Your task to perform on an android device: allow notifications from all sites in the chrome app Image 0: 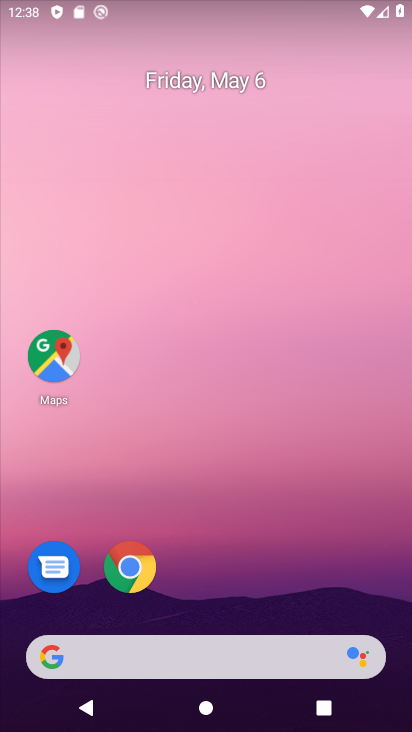
Step 0: drag from (216, 680) to (206, 199)
Your task to perform on an android device: allow notifications from all sites in the chrome app Image 1: 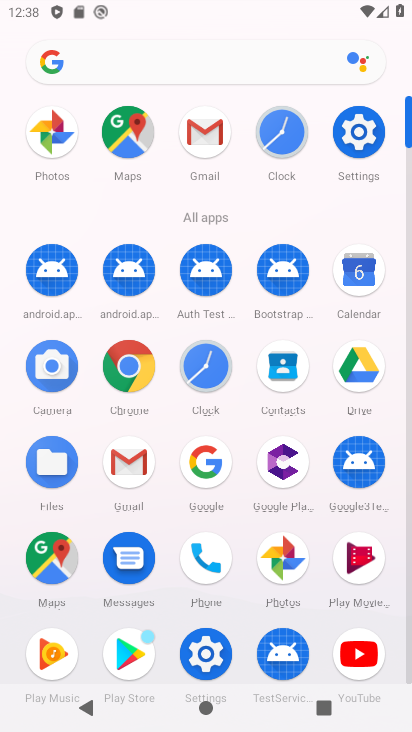
Step 1: click (136, 383)
Your task to perform on an android device: allow notifications from all sites in the chrome app Image 2: 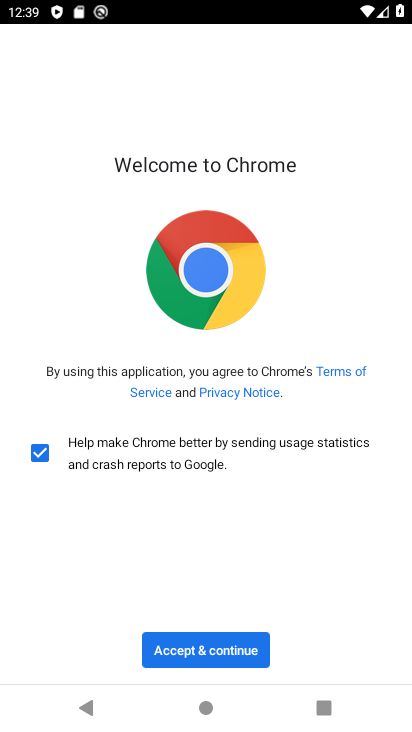
Step 2: click (223, 658)
Your task to perform on an android device: allow notifications from all sites in the chrome app Image 3: 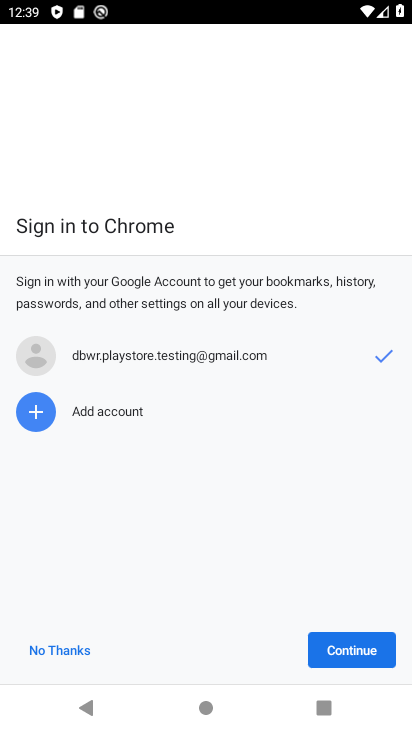
Step 3: click (345, 640)
Your task to perform on an android device: allow notifications from all sites in the chrome app Image 4: 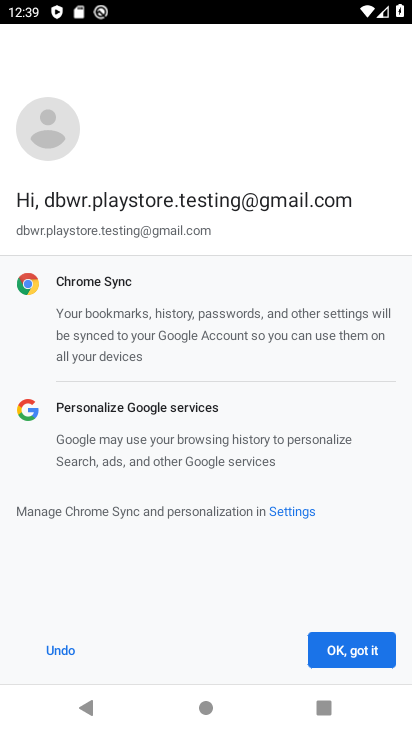
Step 4: click (347, 647)
Your task to perform on an android device: allow notifications from all sites in the chrome app Image 5: 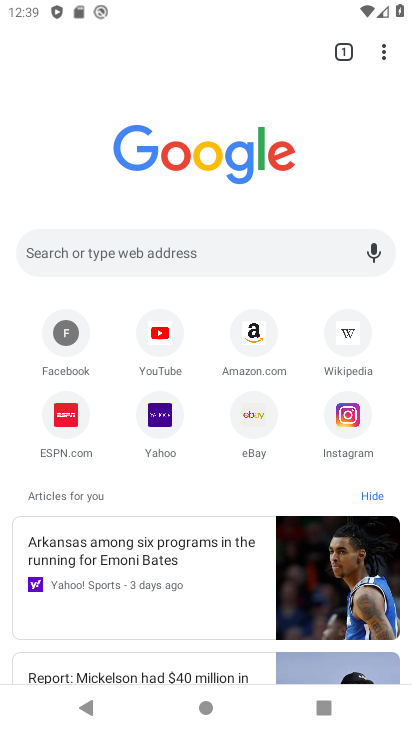
Step 5: click (371, 69)
Your task to perform on an android device: allow notifications from all sites in the chrome app Image 6: 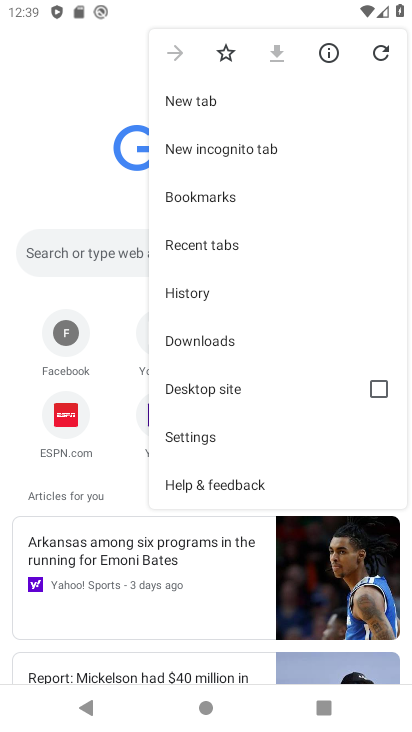
Step 6: click (203, 429)
Your task to perform on an android device: allow notifications from all sites in the chrome app Image 7: 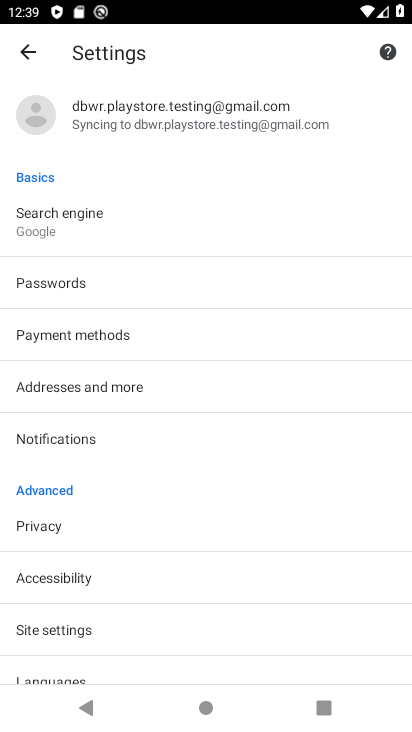
Step 7: click (97, 621)
Your task to perform on an android device: allow notifications from all sites in the chrome app Image 8: 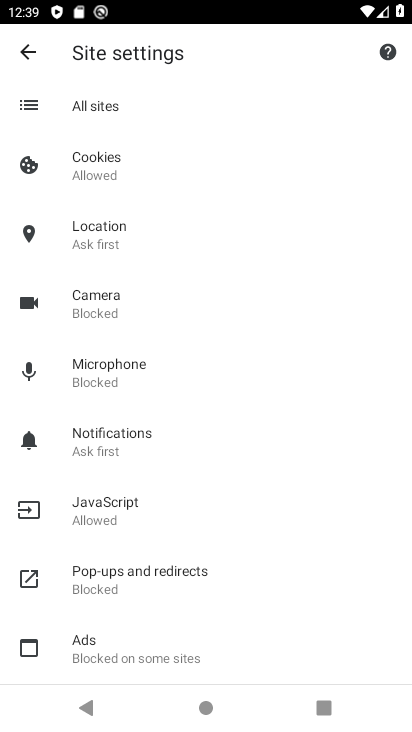
Step 8: click (165, 101)
Your task to perform on an android device: allow notifications from all sites in the chrome app Image 9: 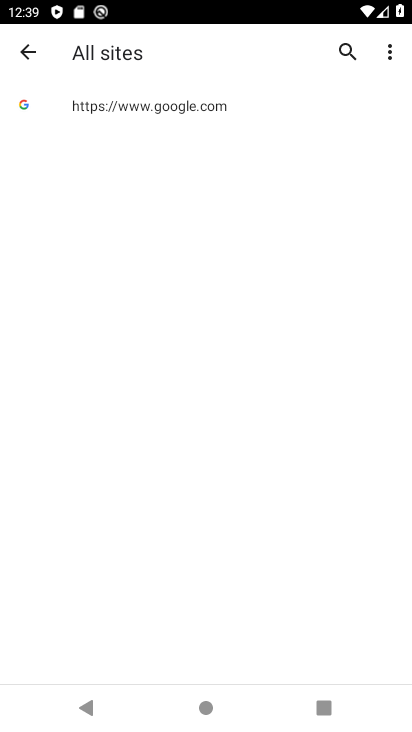
Step 9: task complete